Your task to perform on an android device: change the clock style Image 0: 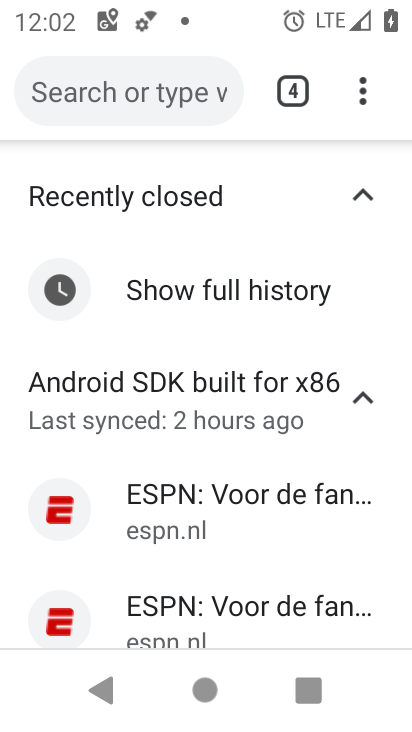
Step 0: press home button
Your task to perform on an android device: change the clock style Image 1: 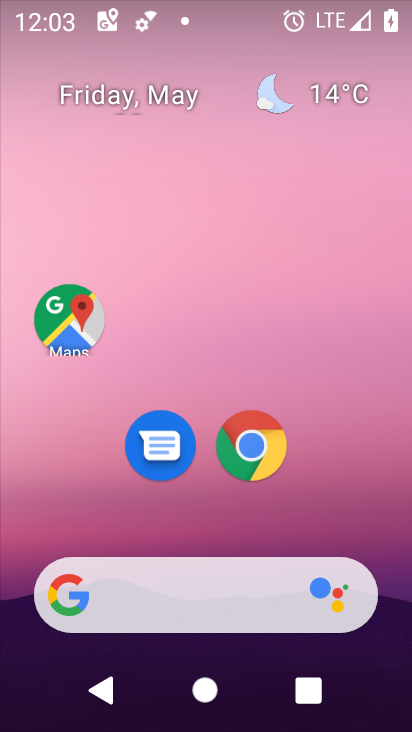
Step 1: drag from (199, 541) to (199, 131)
Your task to perform on an android device: change the clock style Image 2: 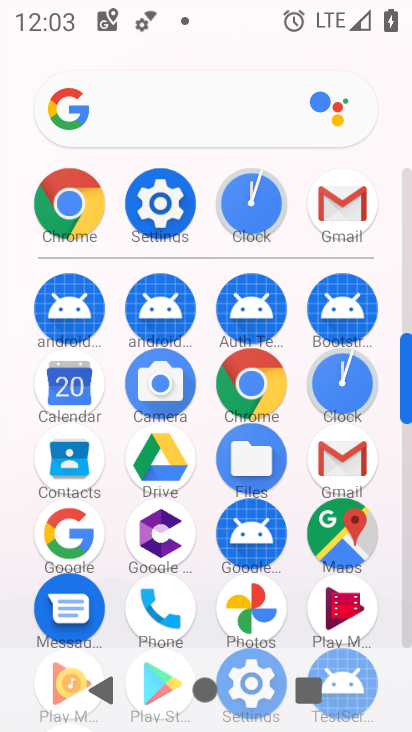
Step 2: click (340, 405)
Your task to perform on an android device: change the clock style Image 3: 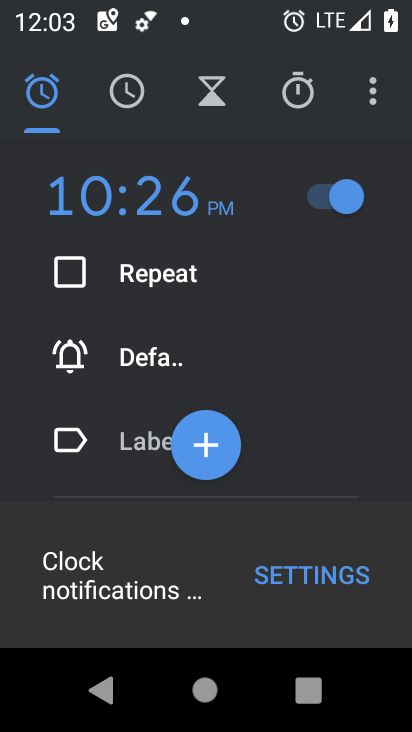
Step 3: click (375, 103)
Your task to perform on an android device: change the clock style Image 4: 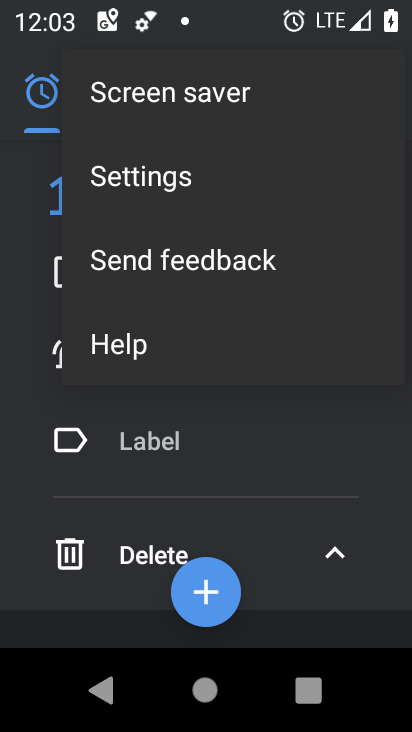
Step 4: click (171, 191)
Your task to perform on an android device: change the clock style Image 5: 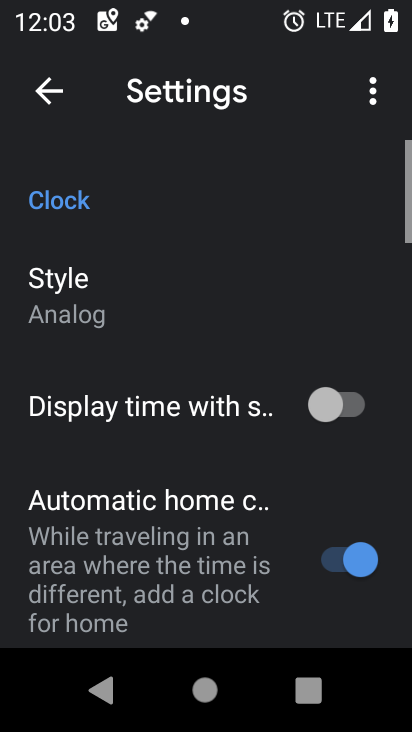
Step 5: click (148, 333)
Your task to perform on an android device: change the clock style Image 6: 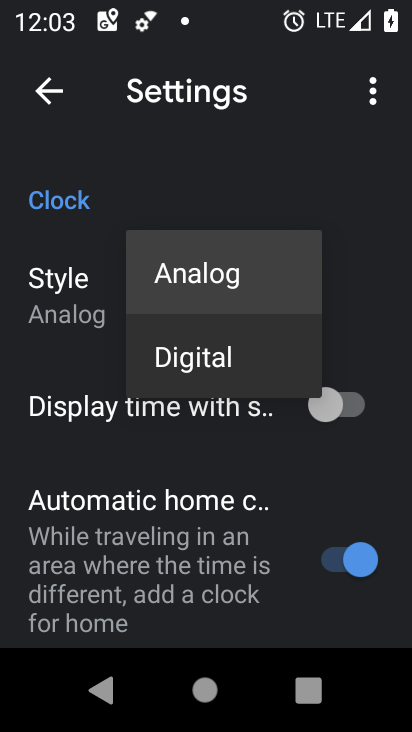
Step 6: click (198, 373)
Your task to perform on an android device: change the clock style Image 7: 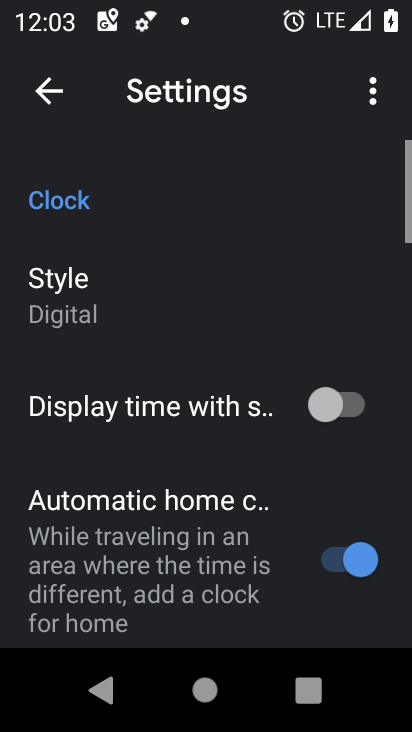
Step 7: task complete